Your task to perform on an android device: What are the best selling refrigerators at Home Depot? Image 0: 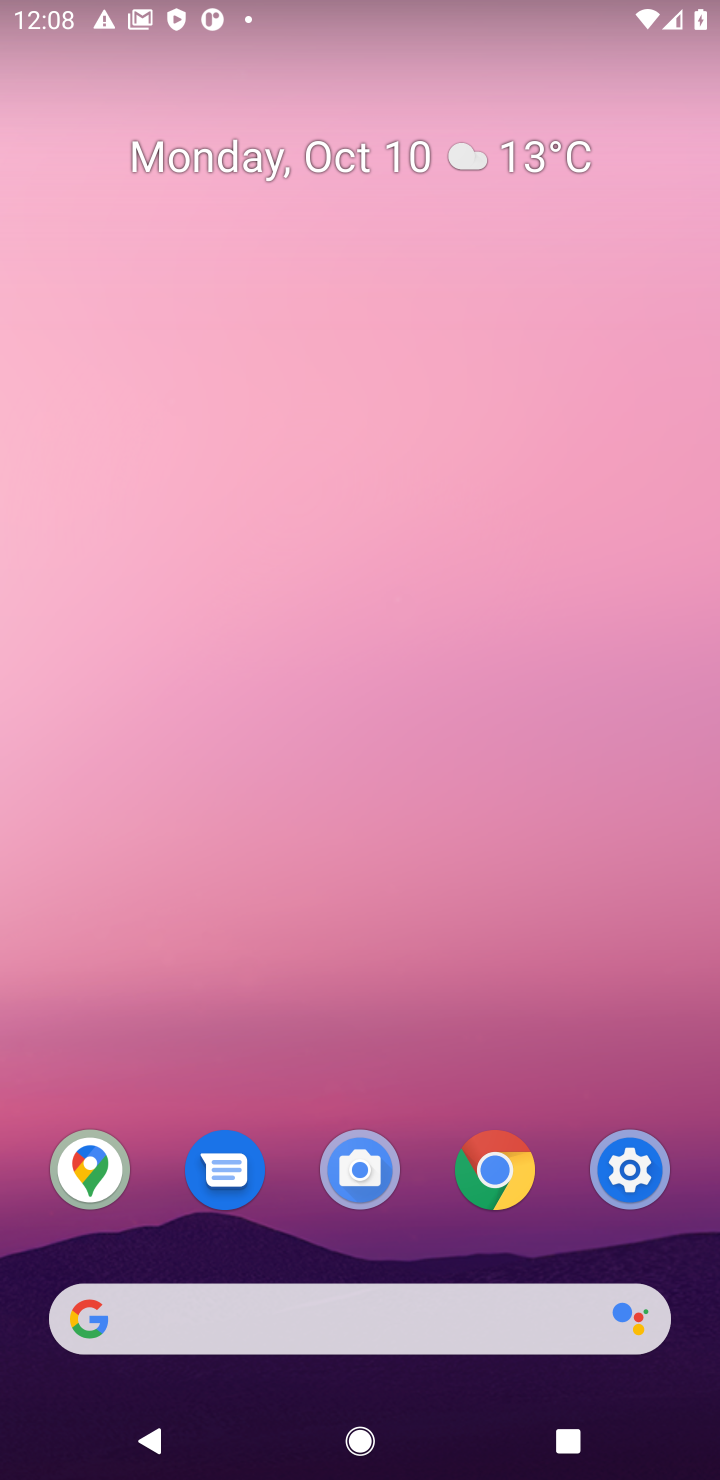
Step 0: click (493, 1170)
Your task to perform on an android device: What are the best selling refrigerators at Home Depot? Image 1: 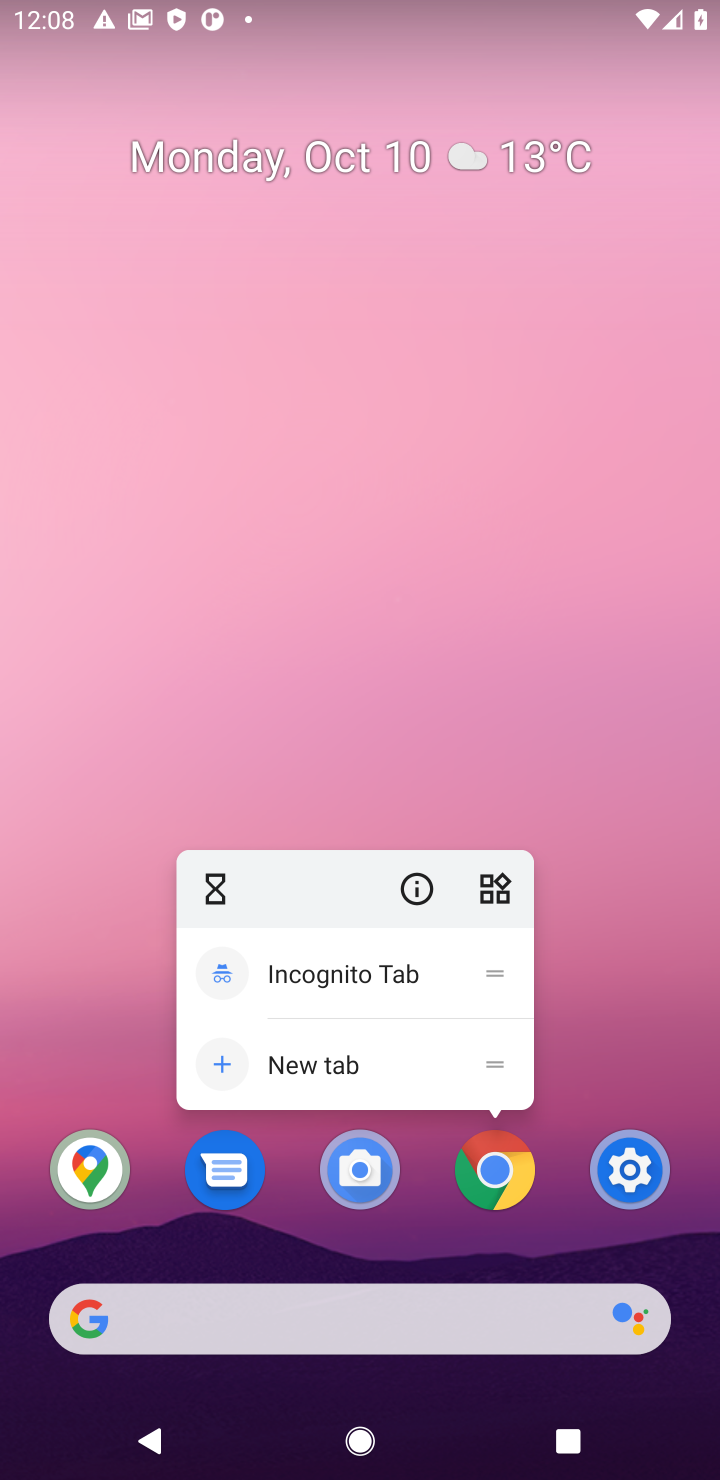
Step 1: click (493, 1170)
Your task to perform on an android device: What are the best selling refrigerators at Home Depot? Image 2: 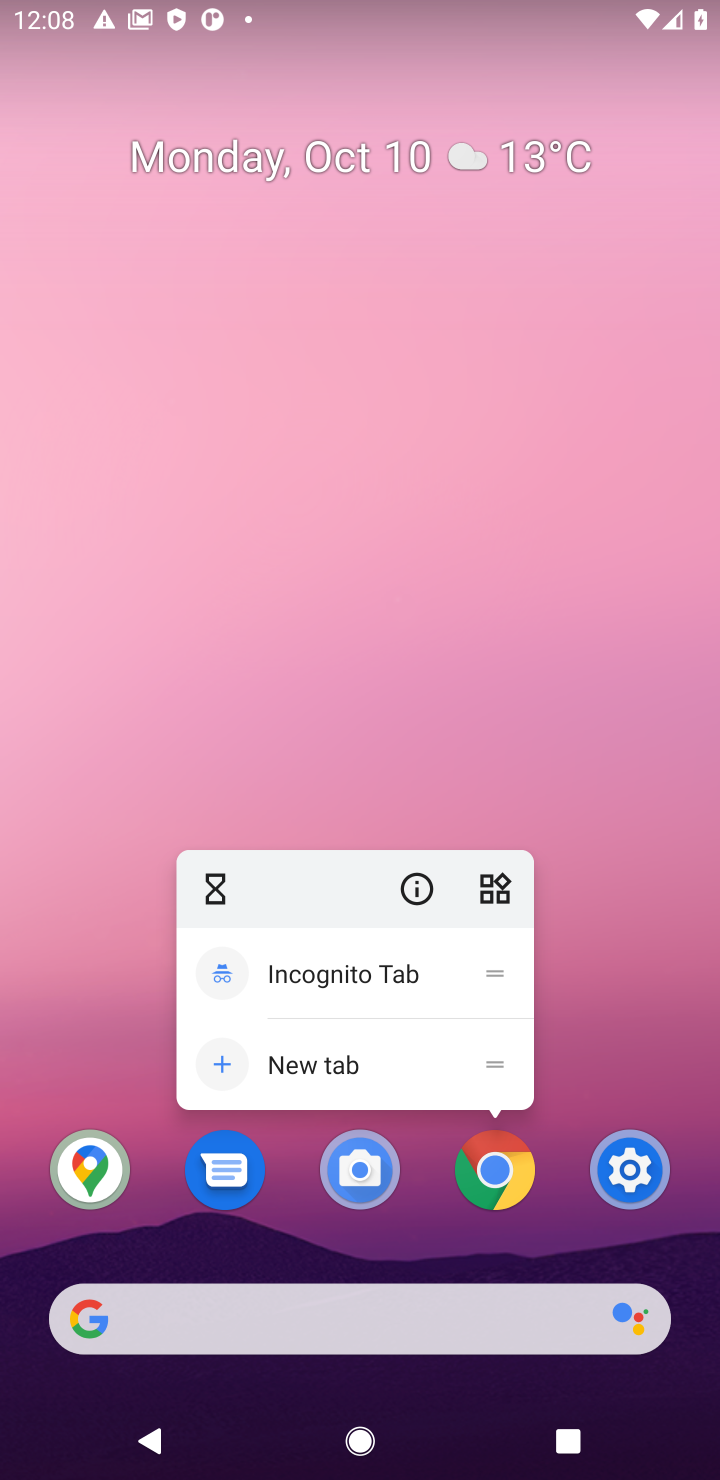
Step 2: click (495, 1175)
Your task to perform on an android device: What are the best selling refrigerators at Home Depot? Image 3: 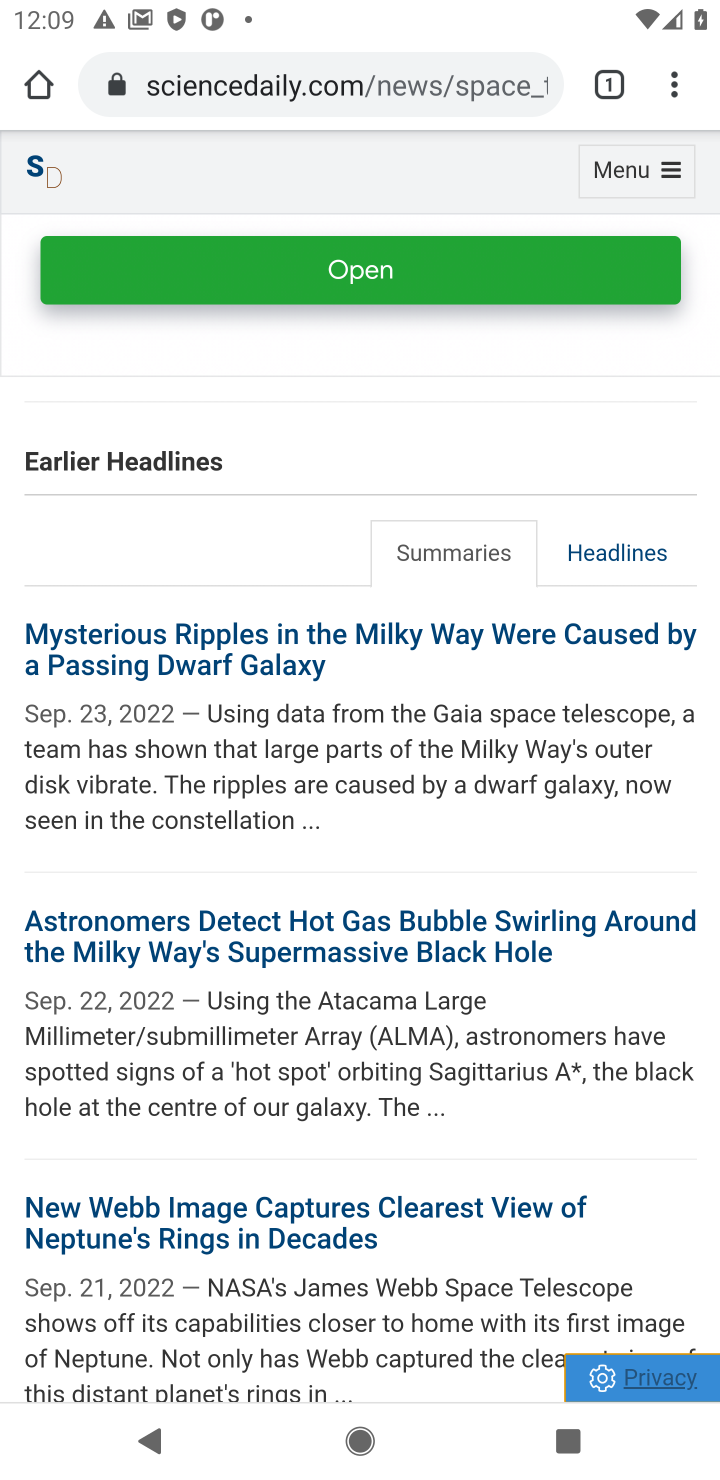
Step 3: click (418, 88)
Your task to perform on an android device: What are the best selling refrigerators at Home Depot? Image 4: 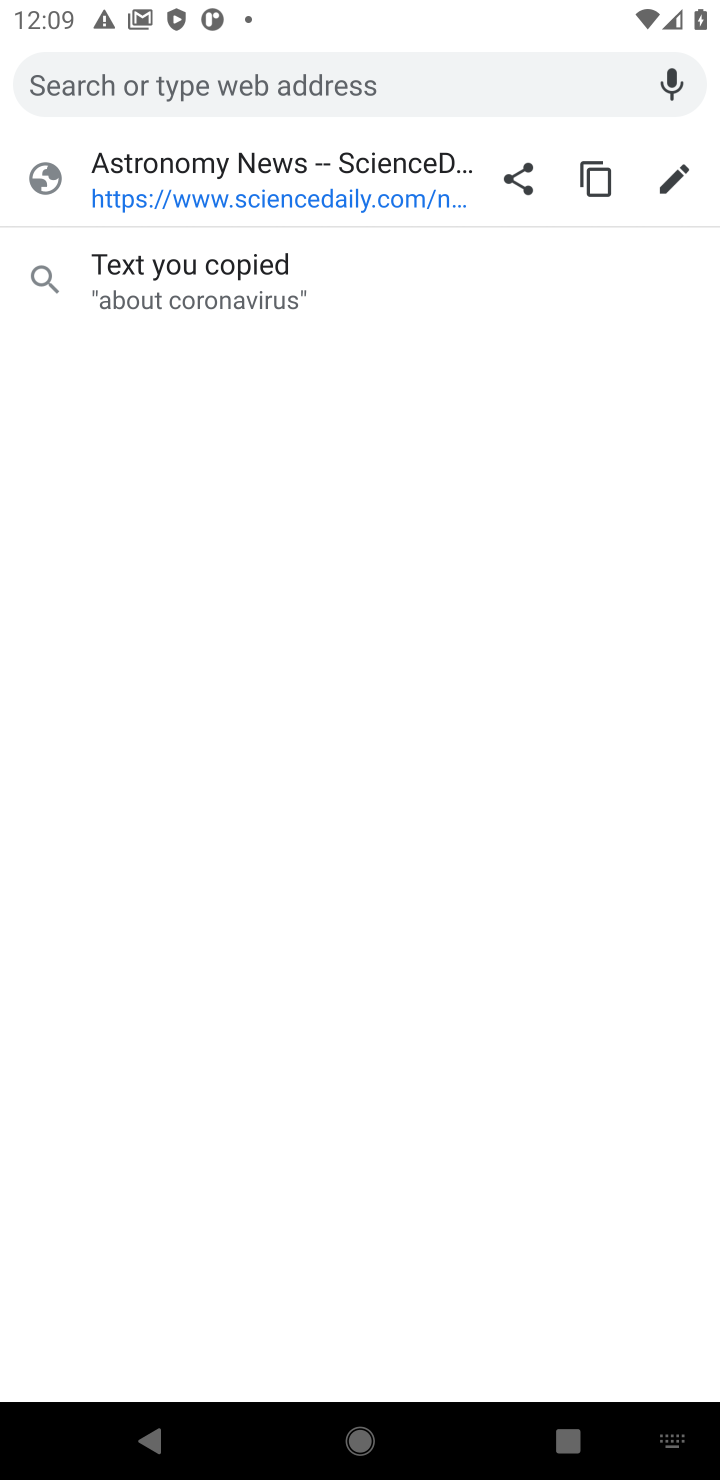
Step 4: type "What are the best selling refrigerators at Home Depot?"
Your task to perform on an android device: What are the best selling refrigerators at Home Depot? Image 5: 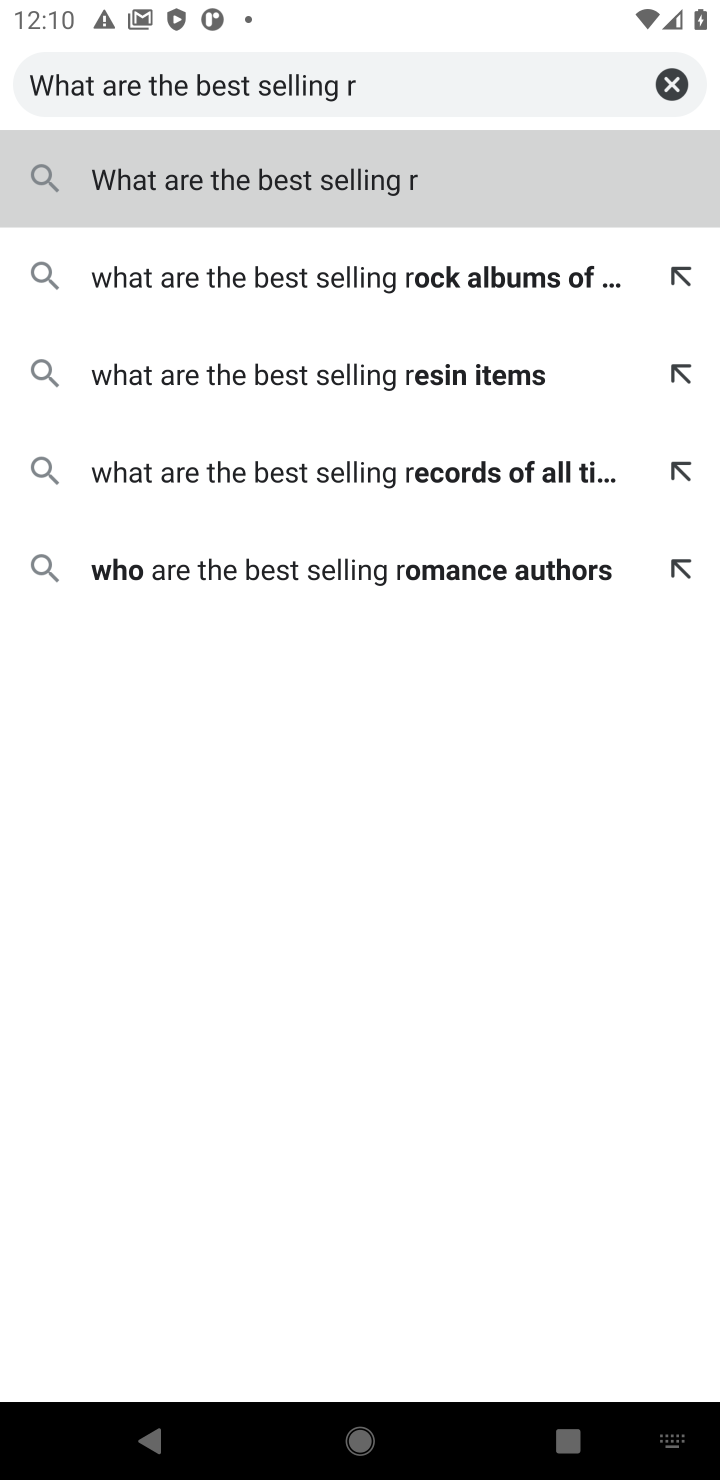
Step 5: type "efrigerators at Home Depot"
Your task to perform on an android device: What are the best selling refrigerators at Home Depot? Image 6: 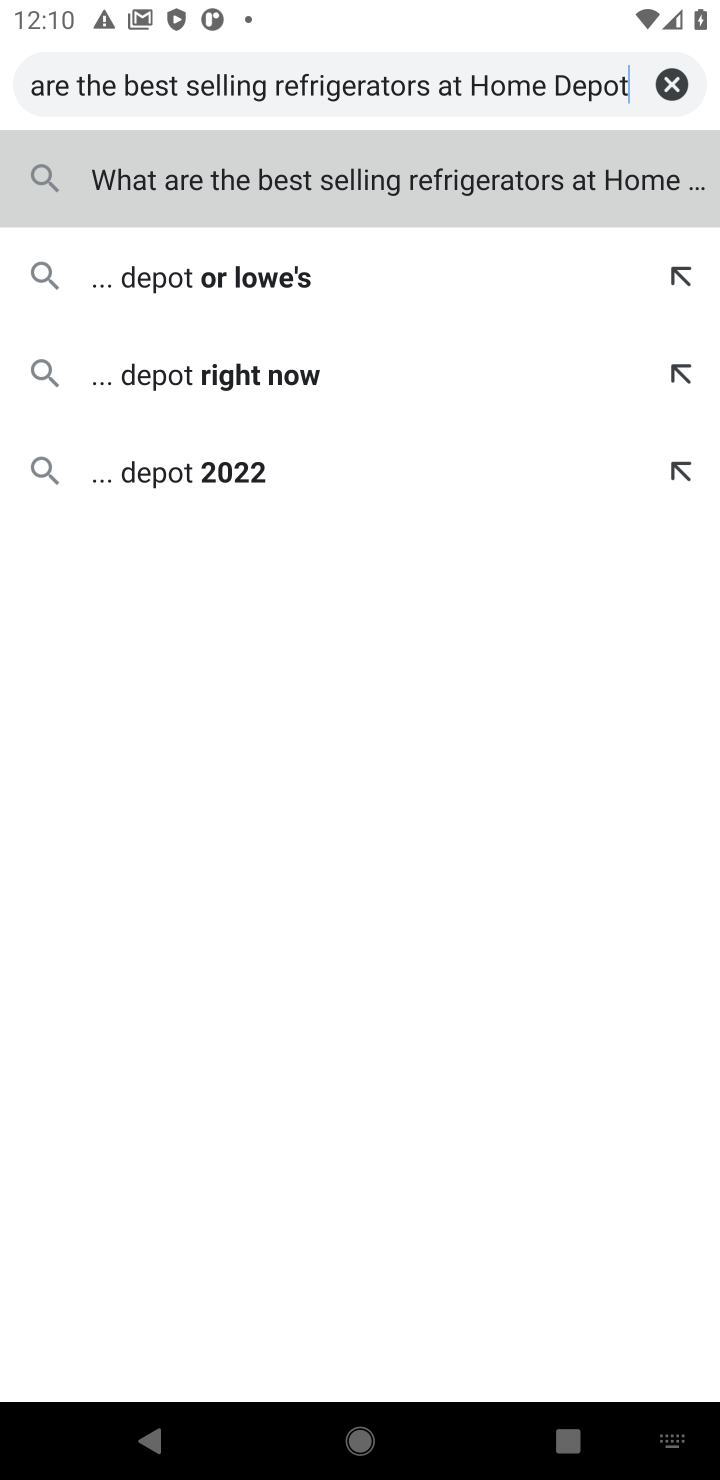
Step 6: click (367, 196)
Your task to perform on an android device: What are the best selling refrigerators at Home Depot? Image 7: 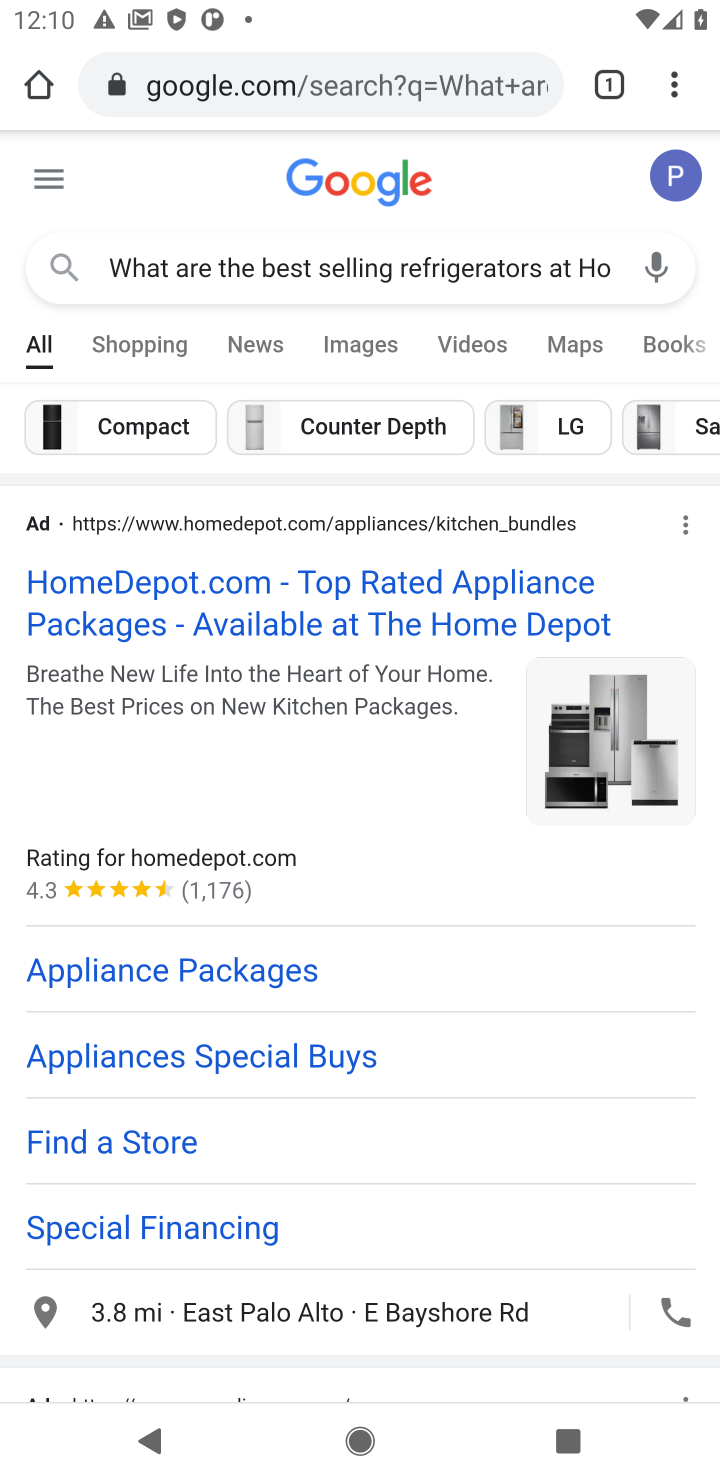
Step 7: click (387, 614)
Your task to perform on an android device: What are the best selling refrigerators at Home Depot? Image 8: 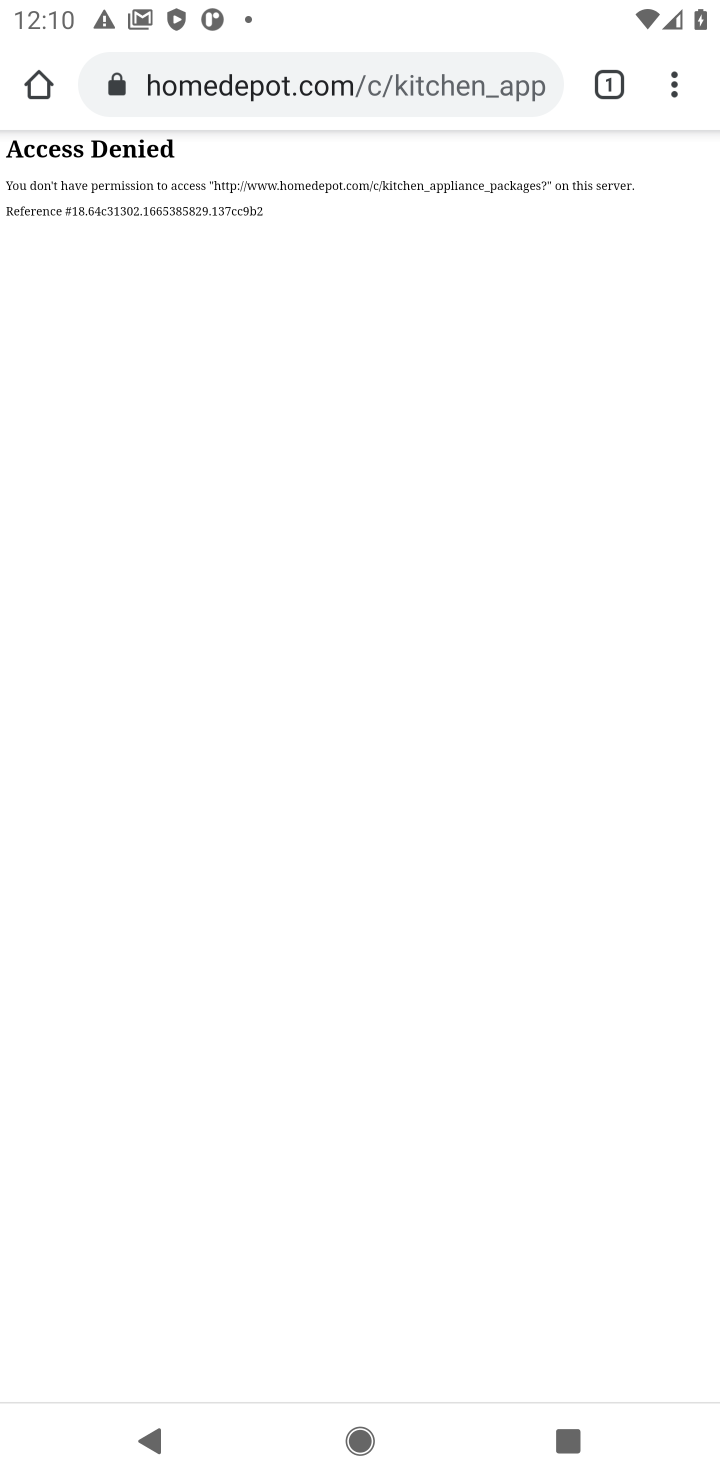
Step 8: task complete